Your task to perform on an android device: Open Chrome and go to the settings page Image 0: 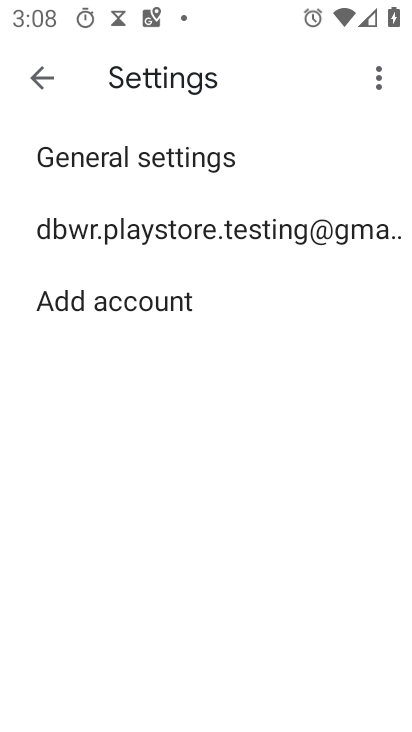
Step 0: task complete